Your task to perform on an android device: Open the stopwatch Image 0: 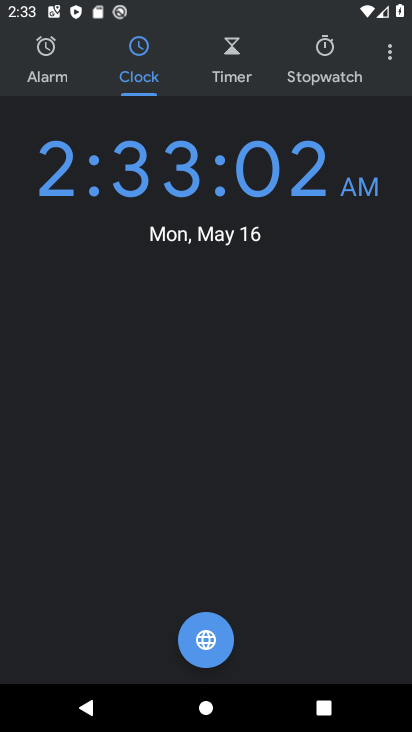
Step 0: click (328, 59)
Your task to perform on an android device: Open the stopwatch Image 1: 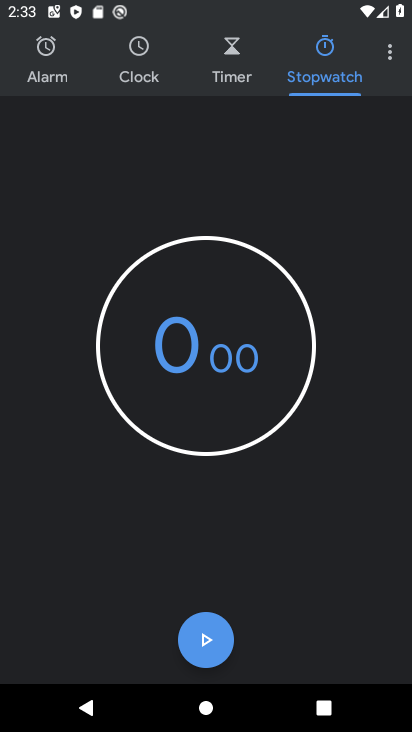
Step 1: task complete